Your task to perform on an android device: open app "TextNow: Call + Text Unlimited" (install if not already installed) Image 0: 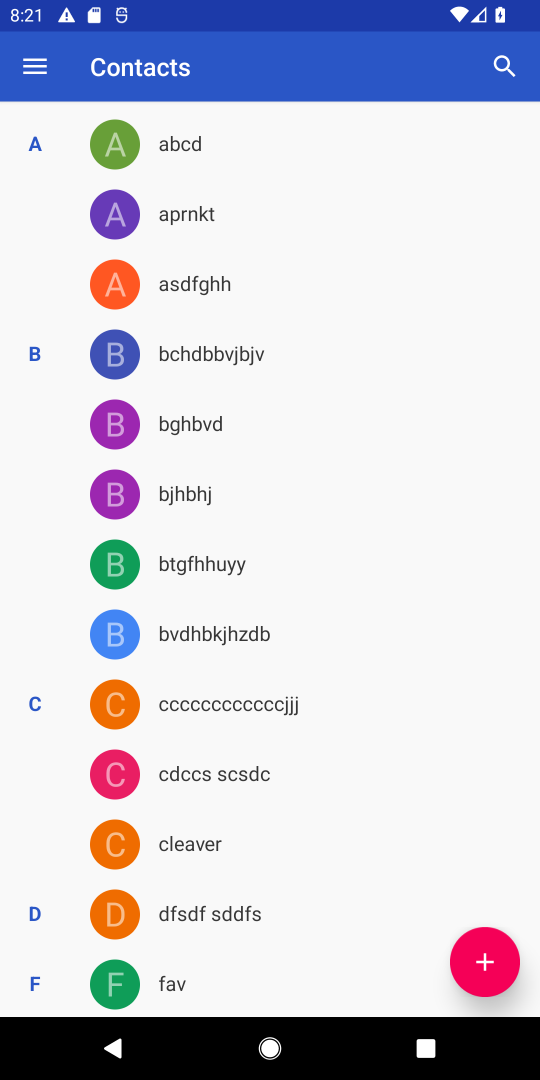
Step 0: press home button
Your task to perform on an android device: open app "TextNow: Call + Text Unlimited" (install if not already installed) Image 1: 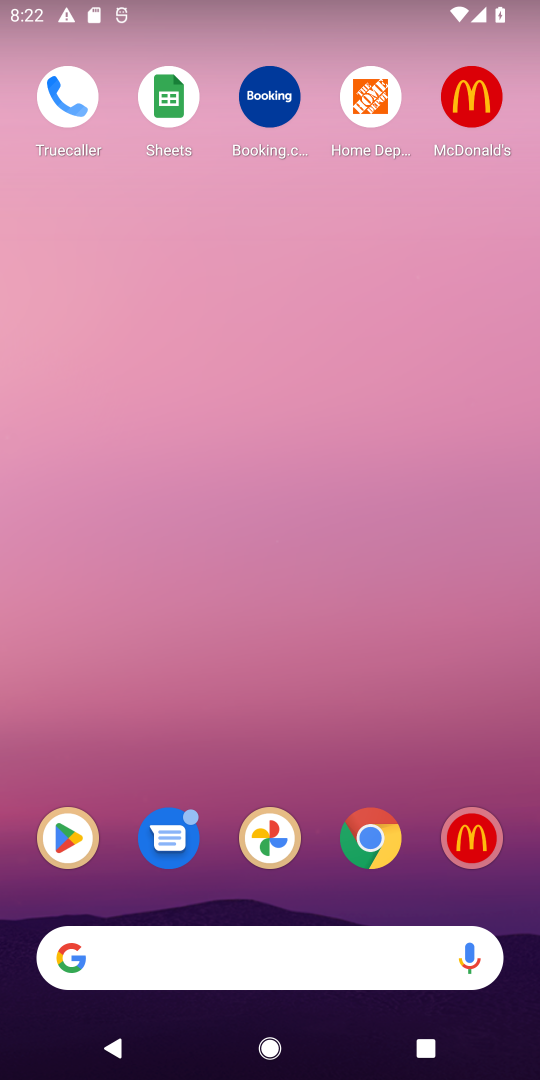
Step 1: drag from (359, 895) to (304, 158)
Your task to perform on an android device: open app "TextNow: Call + Text Unlimited" (install if not already installed) Image 2: 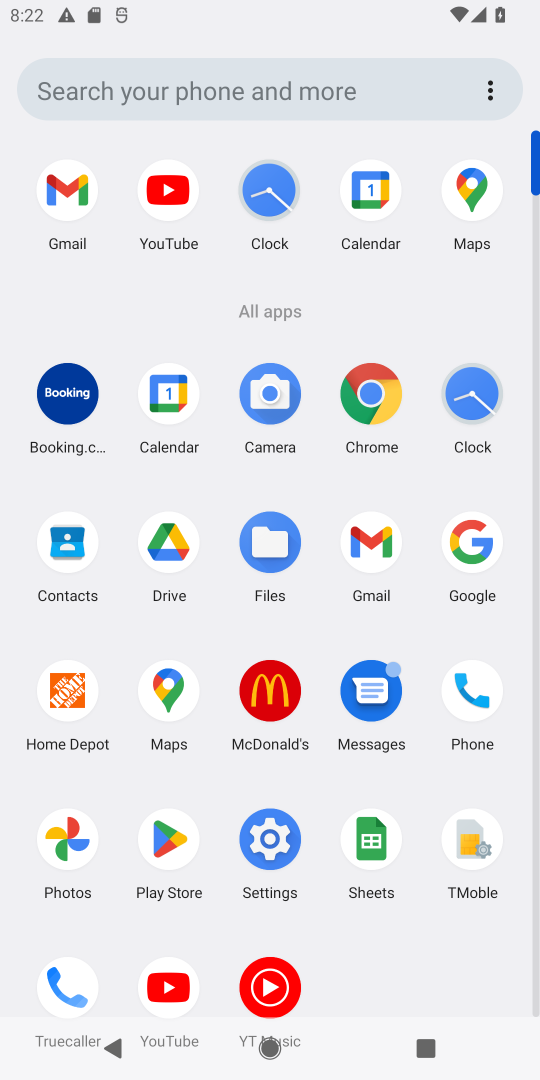
Step 2: click (173, 853)
Your task to perform on an android device: open app "TextNow: Call + Text Unlimited" (install if not already installed) Image 3: 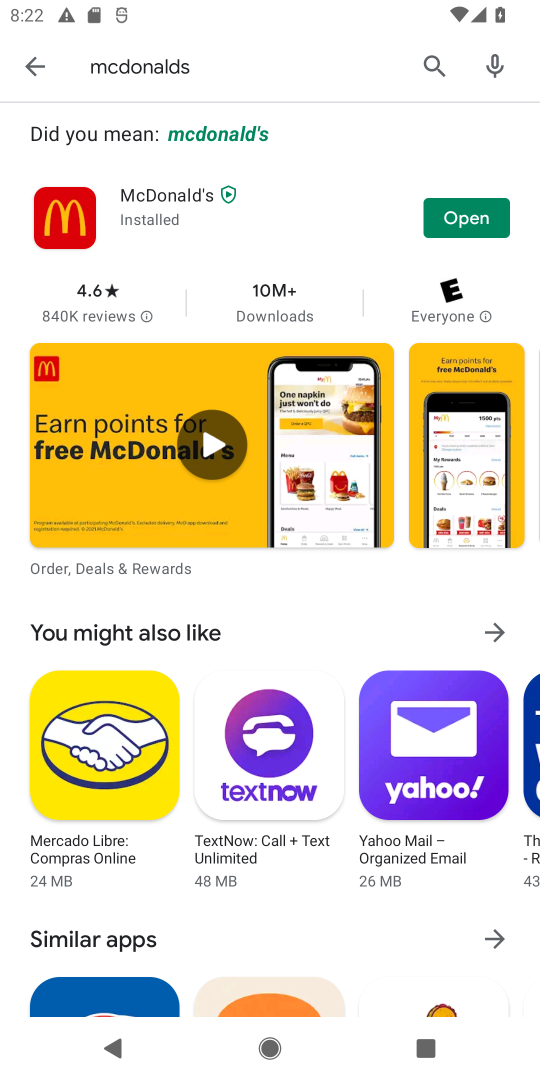
Step 3: click (426, 72)
Your task to perform on an android device: open app "TextNow: Call + Text Unlimited" (install if not already installed) Image 4: 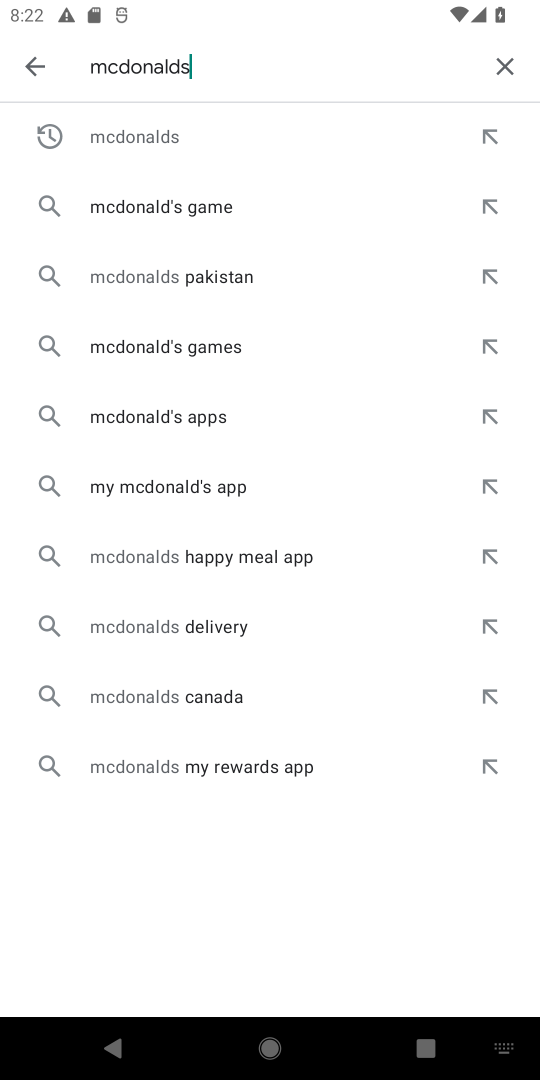
Step 4: click (502, 63)
Your task to perform on an android device: open app "TextNow: Call + Text Unlimited" (install if not already installed) Image 5: 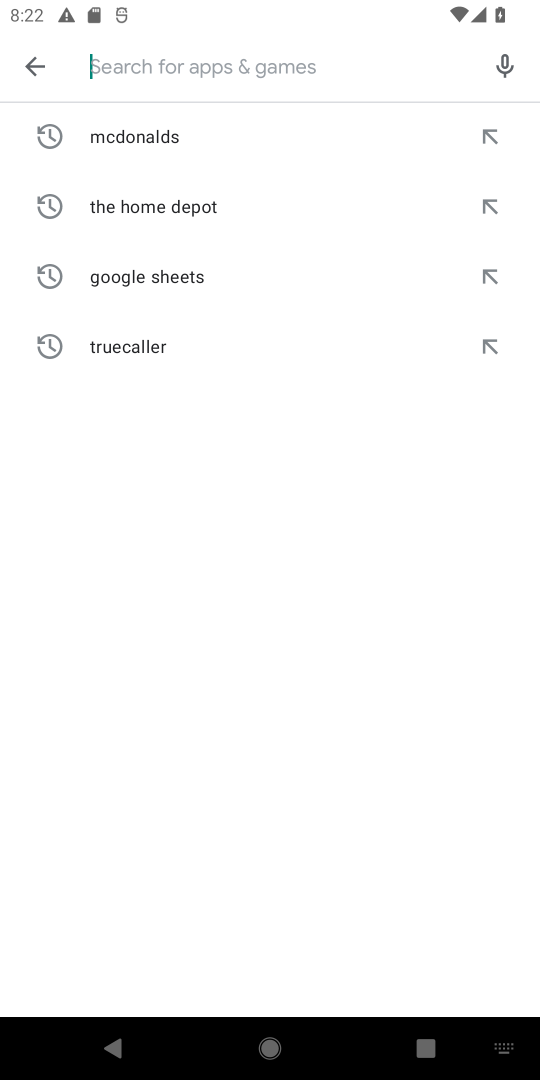
Step 5: type "textnow: call+ text unlimited"
Your task to perform on an android device: open app "TextNow: Call + Text Unlimited" (install if not already installed) Image 6: 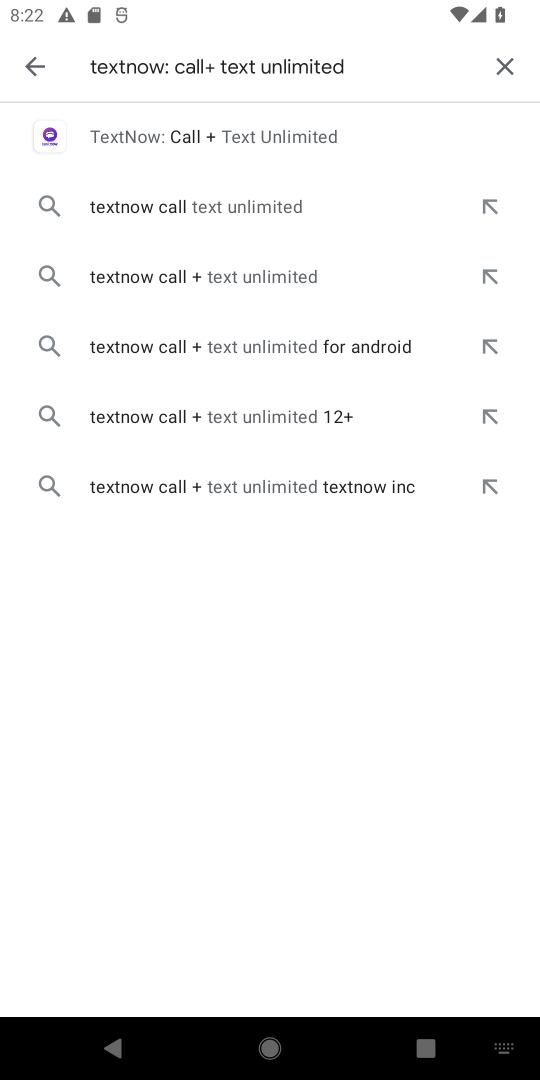
Step 6: click (220, 143)
Your task to perform on an android device: open app "TextNow: Call + Text Unlimited" (install if not already installed) Image 7: 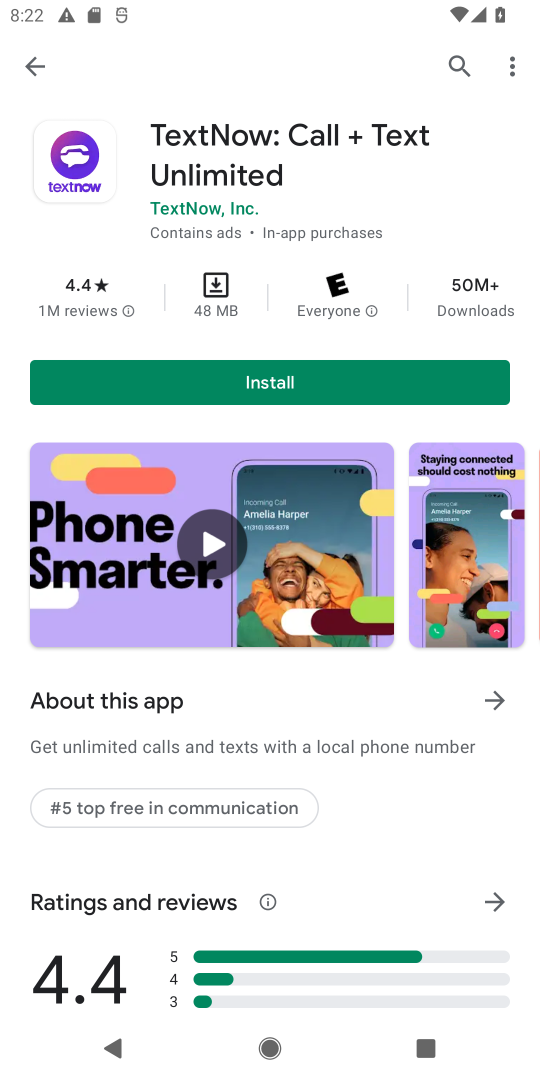
Step 7: click (216, 390)
Your task to perform on an android device: open app "TextNow: Call + Text Unlimited" (install if not already installed) Image 8: 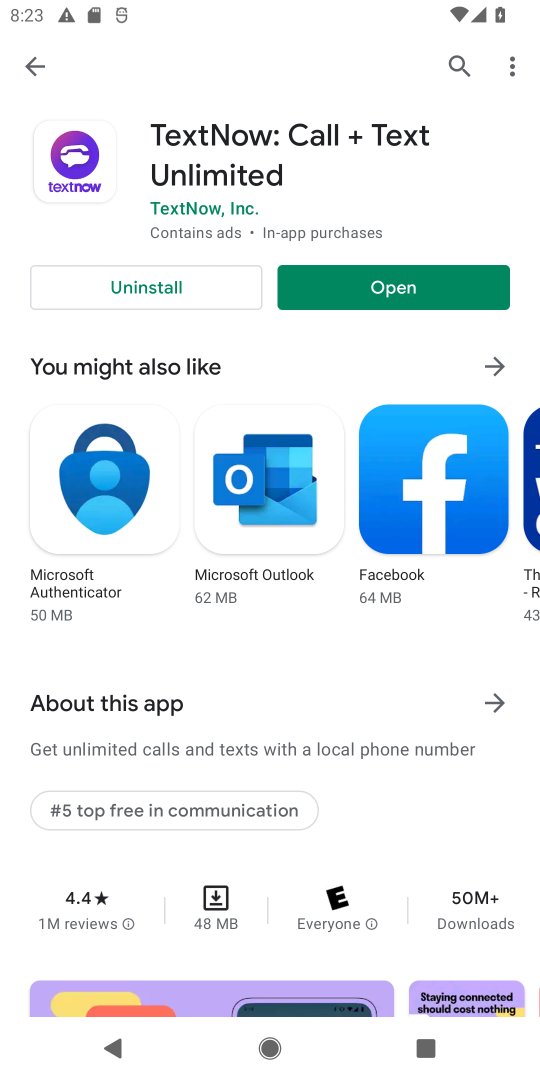
Step 8: click (337, 295)
Your task to perform on an android device: open app "TextNow: Call + Text Unlimited" (install if not already installed) Image 9: 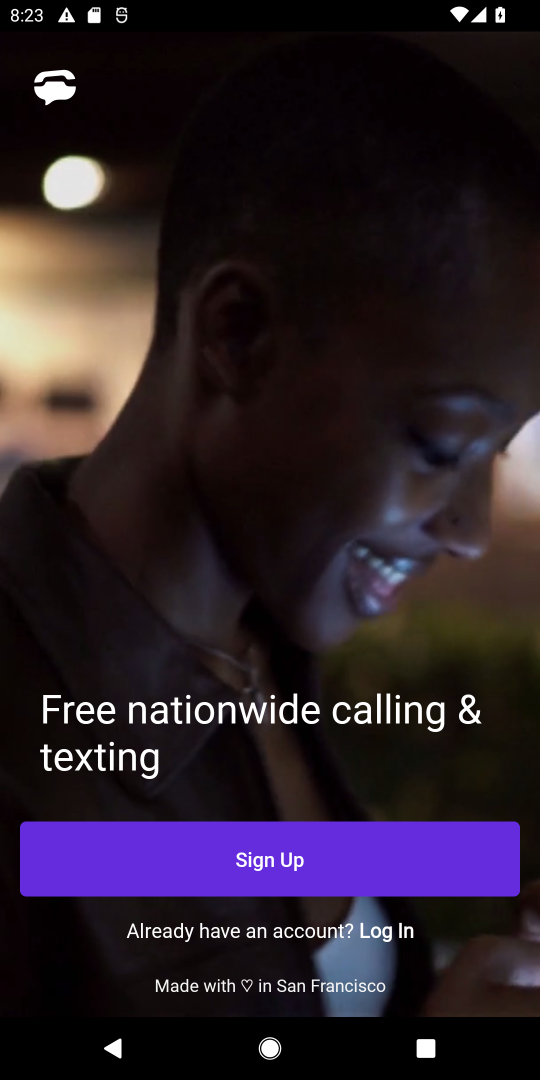
Step 9: task complete